Your task to perform on an android device: all mails in gmail Image 0: 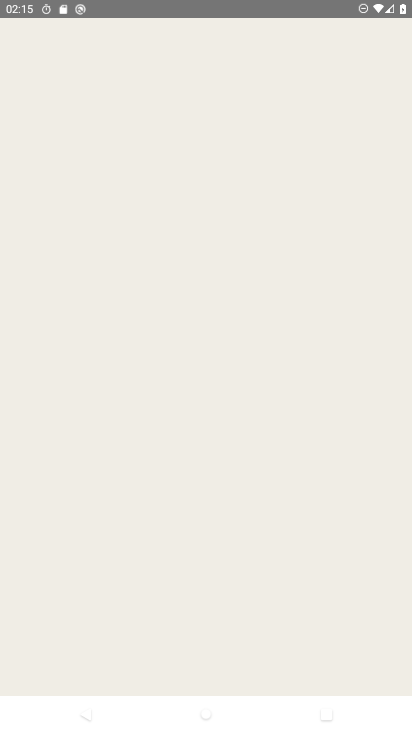
Step 0: press home button
Your task to perform on an android device: all mails in gmail Image 1: 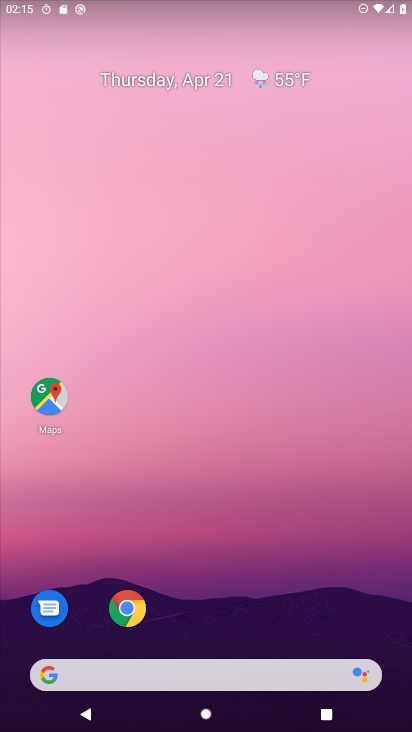
Step 1: drag from (218, 520) to (85, 79)
Your task to perform on an android device: all mails in gmail Image 2: 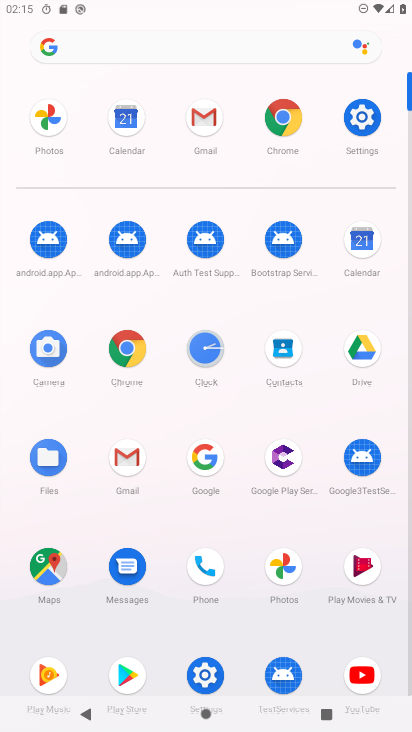
Step 2: click (206, 127)
Your task to perform on an android device: all mails in gmail Image 3: 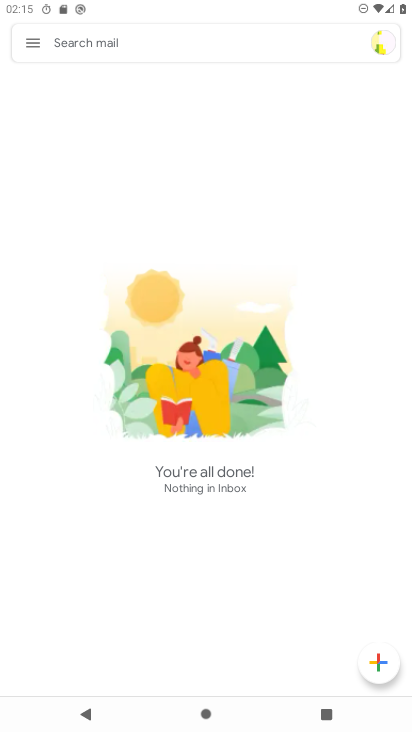
Step 3: click (35, 42)
Your task to perform on an android device: all mails in gmail Image 4: 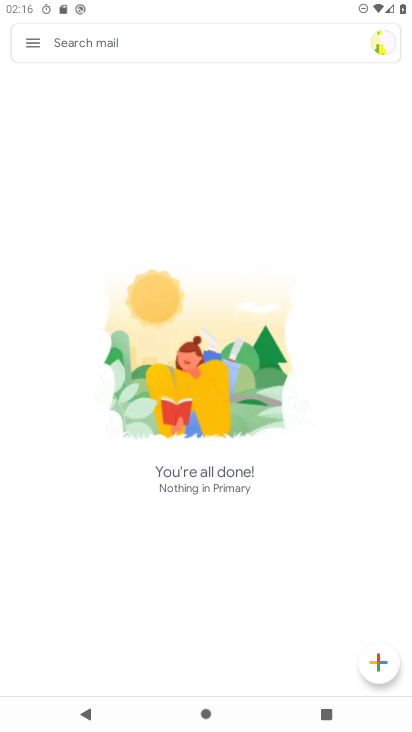
Step 4: click (33, 43)
Your task to perform on an android device: all mails in gmail Image 5: 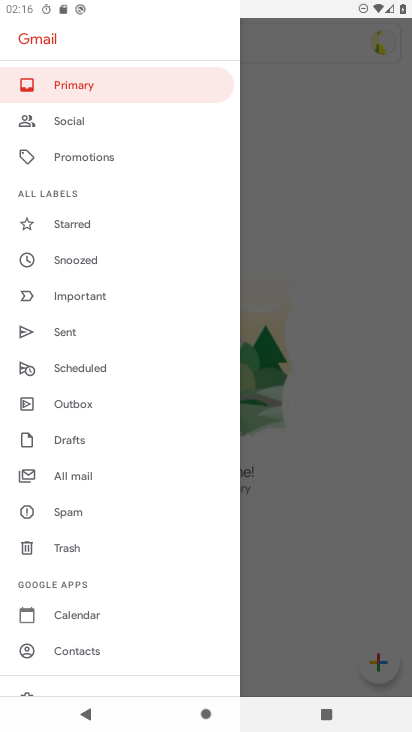
Step 5: click (49, 479)
Your task to perform on an android device: all mails in gmail Image 6: 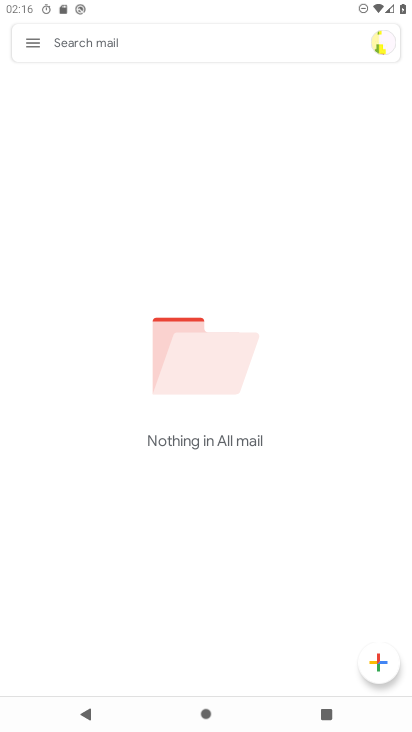
Step 6: task complete